Your task to perform on an android device: install app "Etsy: Buy & Sell Unique Items" Image 0: 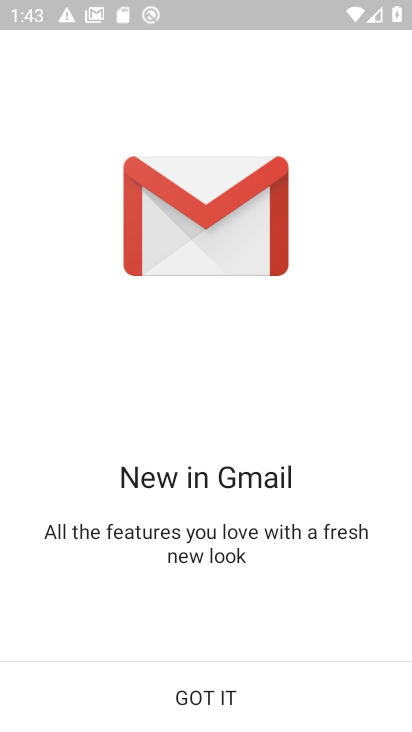
Step 0: press home button
Your task to perform on an android device: install app "Etsy: Buy & Sell Unique Items" Image 1: 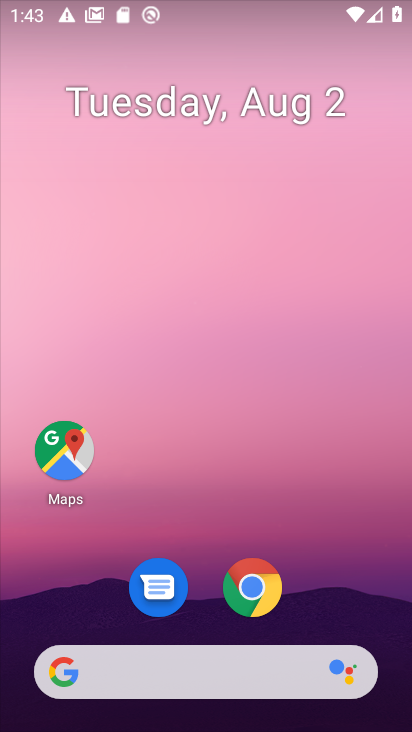
Step 1: drag from (203, 558) to (216, 140)
Your task to perform on an android device: install app "Etsy: Buy & Sell Unique Items" Image 2: 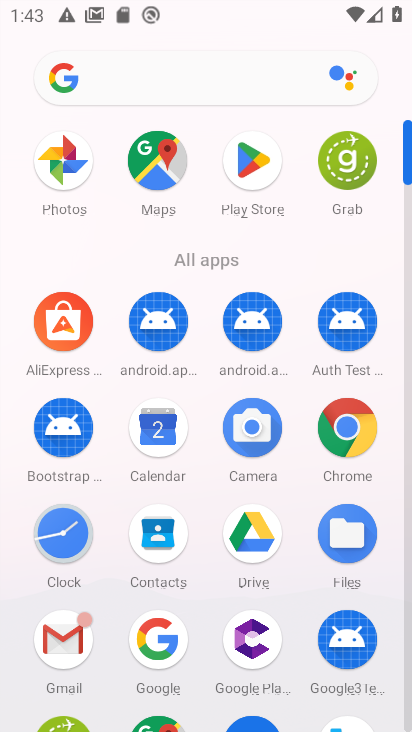
Step 2: click (253, 164)
Your task to perform on an android device: install app "Etsy: Buy & Sell Unique Items" Image 3: 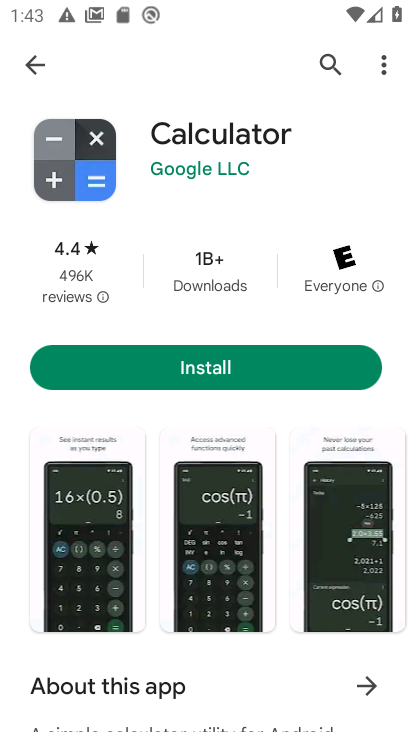
Step 3: click (330, 68)
Your task to perform on an android device: install app "Etsy: Buy & Sell Unique Items" Image 4: 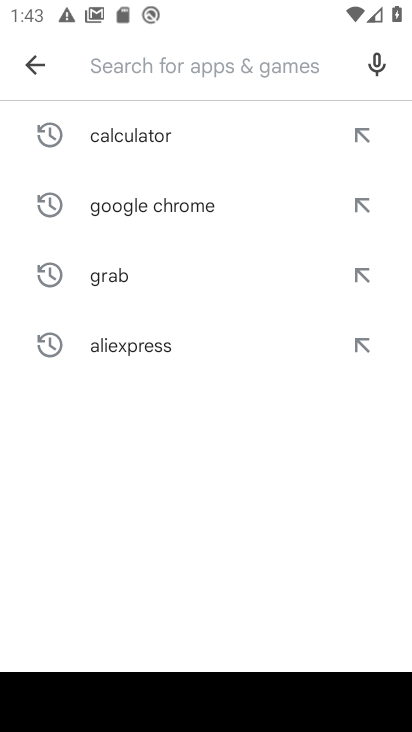
Step 4: type "Etsy: Buy & Sell Unique Items"
Your task to perform on an android device: install app "Etsy: Buy & Sell Unique Items" Image 5: 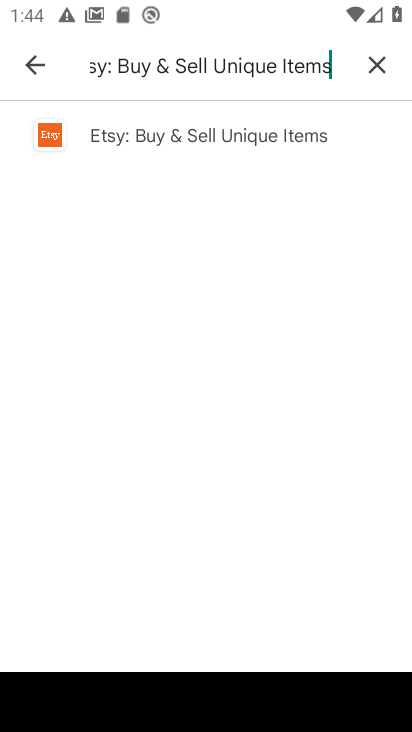
Step 5: click (187, 136)
Your task to perform on an android device: install app "Etsy: Buy & Sell Unique Items" Image 6: 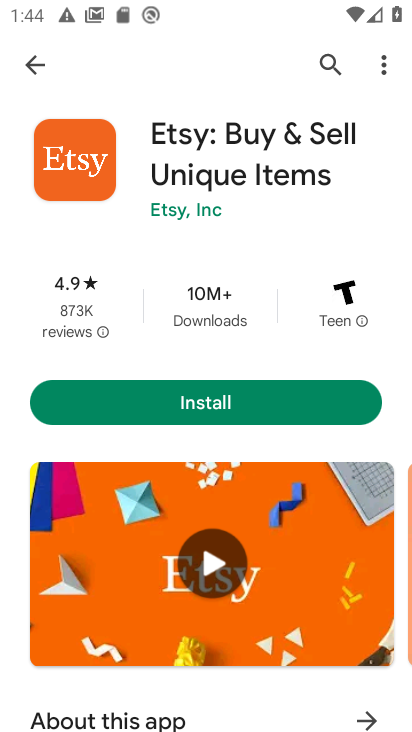
Step 6: click (218, 410)
Your task to perform on an android device: install app "Etsy: Buy & Sell Unique Items" Image 7: 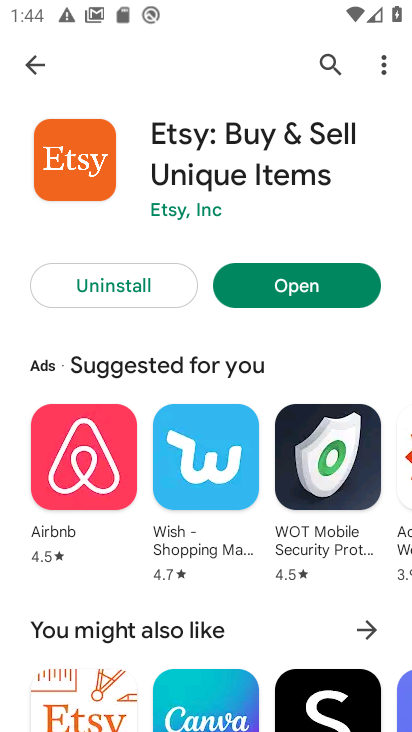
Step 7: task complete